Your task to perform on an android device: What is the news today? Image 0: 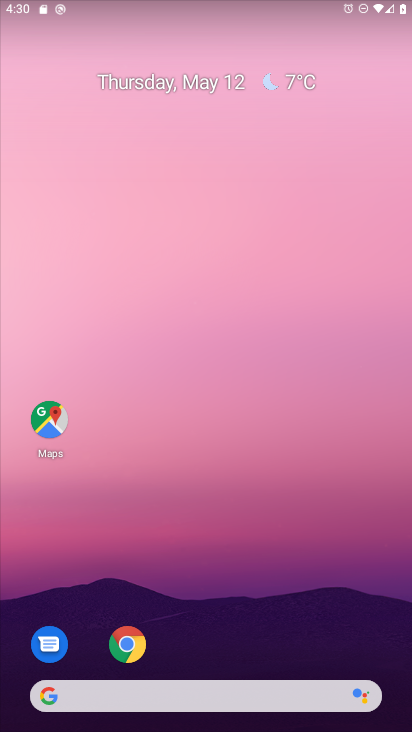
Step 0: click (201, 695)
Your task to perform on an android device: What is the news today? Image 1: 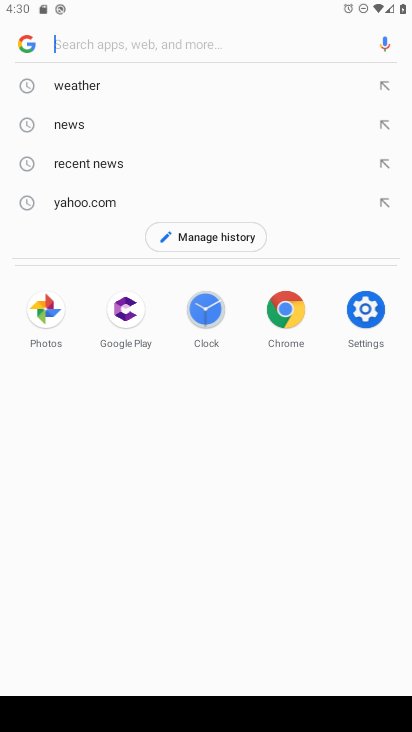
Step 1: type "news today"
Your task to perform on an android device: What is the news today? Image 2: 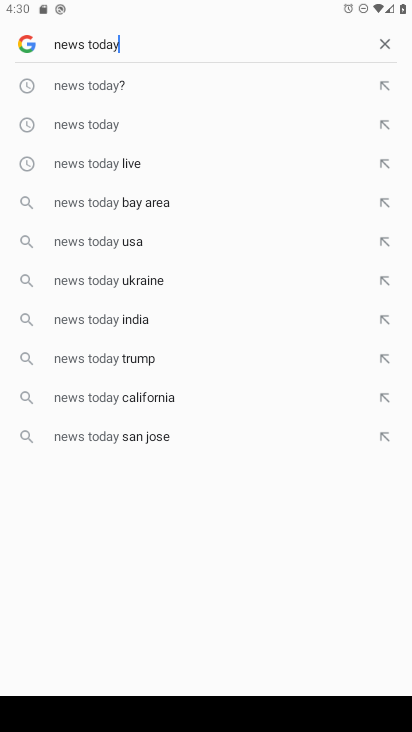
Step 2: click (100, 83)
Your task to perform on an android device: What is the news today? Image 3: 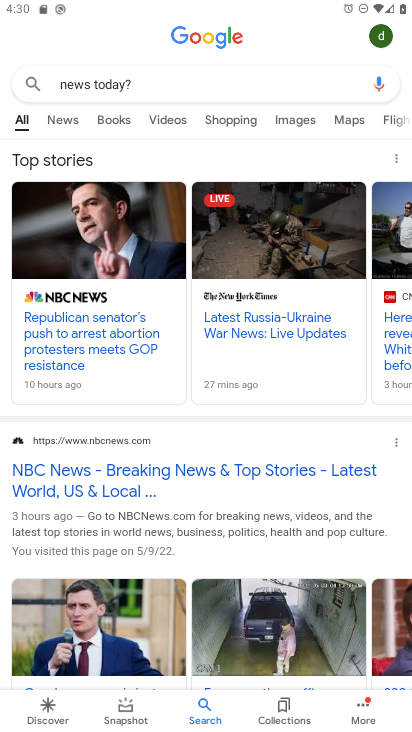
Step 3: task complete